Your task to perform on an android device: What's the weather going to be tomorrow? Image 0: 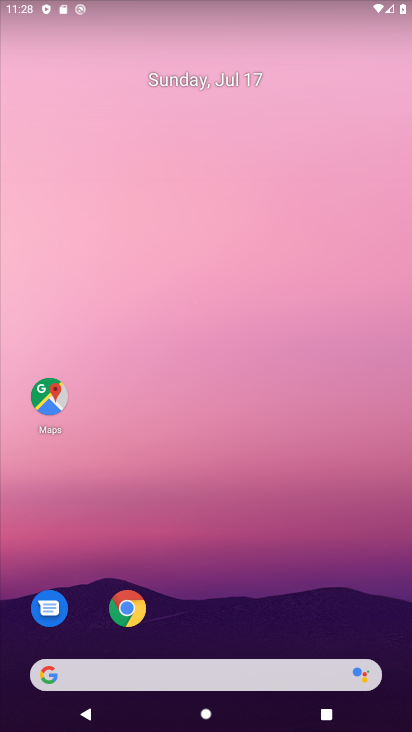
Step 0: click (179, 671)
Your task to perform on an android device: What's the weather going to be tomorrow? Image 1: 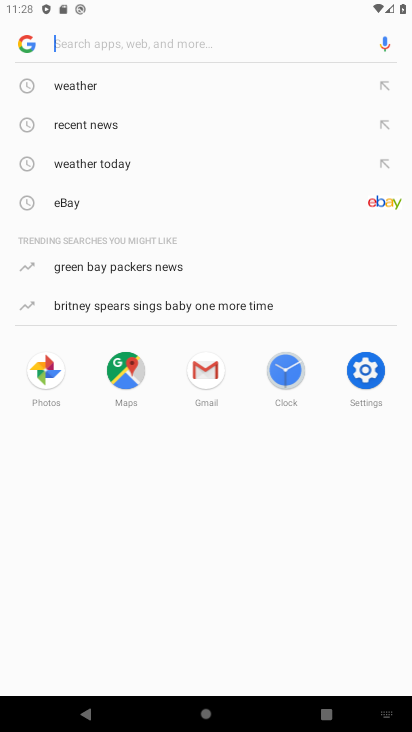
Step 1: type "What's the weather going to be tomorrow?"
Your task to perform on an android device: What's the weather going to be tomorrow? Image 2: 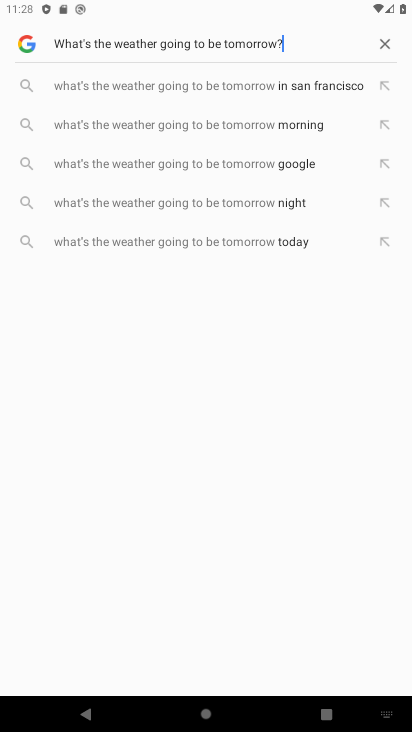
Step 2: press enter
Your task to perform on an android device: What's the weather going to be tomorrow? Image 3: 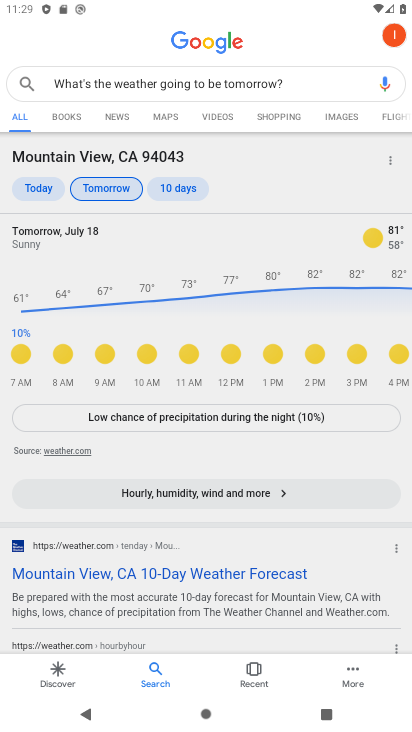
Step 3: task complete